Your task to perform on an android device: Go to sound settings Image 0: 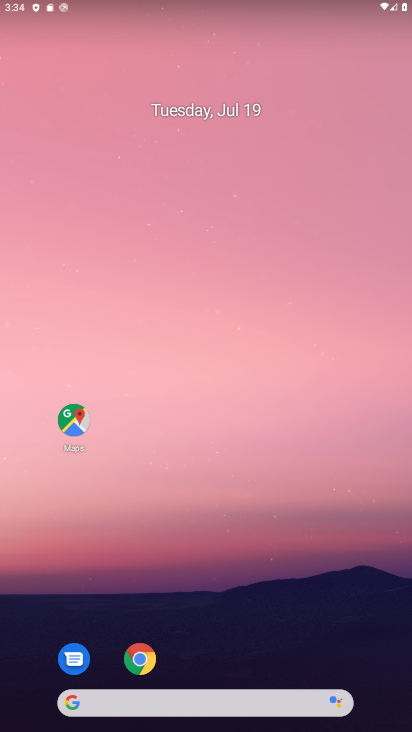
Step 0: drag from (212, 550) to (115, 186)
Your task to perform on an android device: Go to sound settings Image 1: 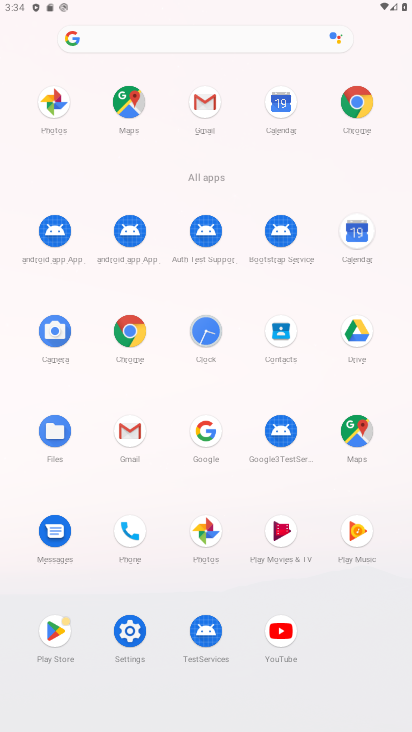
Step 1: click (120, 633)
Your task to perform on an android device: Go to sound settings Image 2: 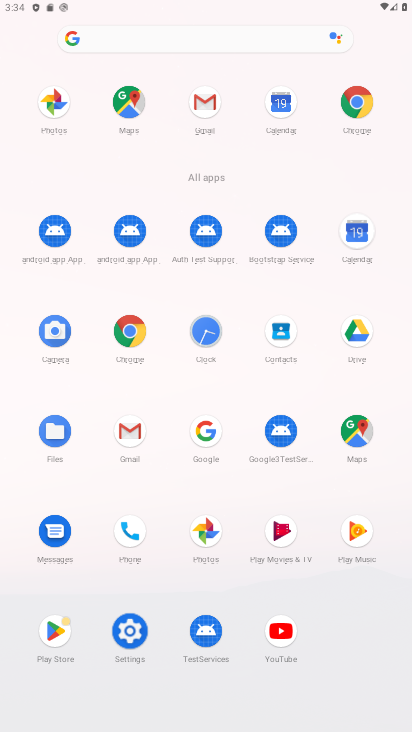
Step 2: click (122, 632)
Your task to perform on an android device: Go to sound settings Image 3: 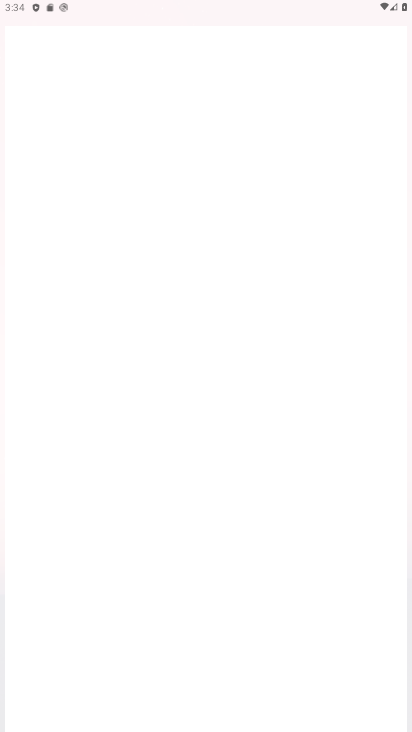
Step 3: click (132, 626)
Your task to perform on an android device: Go to sound settings Image 4: 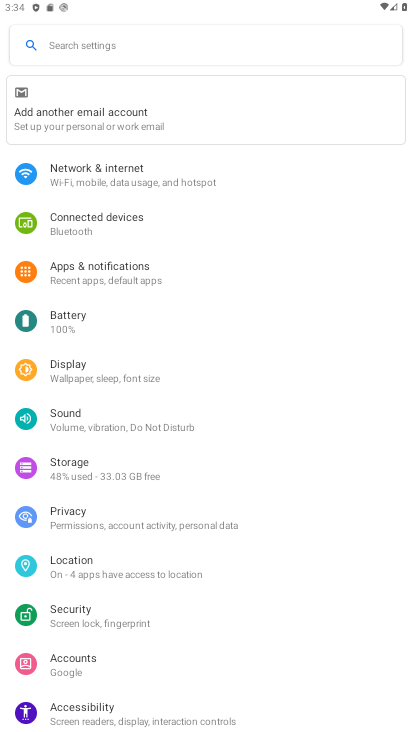
Step 4: click (40, 409)
Your task to perform on an android device: Go to sound settings Image 5: 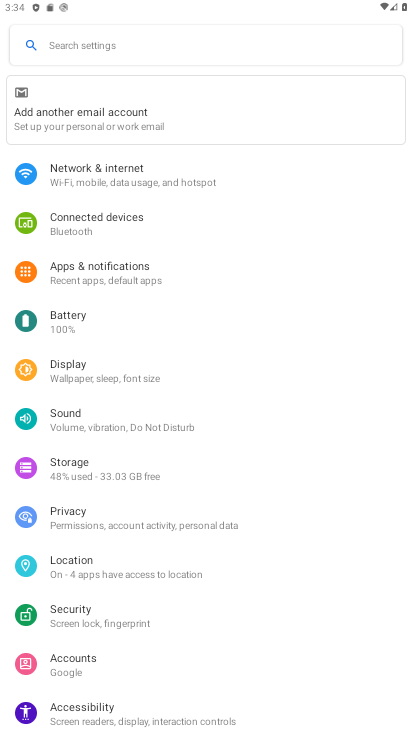
Step 5: click (41, 407)
Your task to perform on an android device: Go to sound settings Image 6: 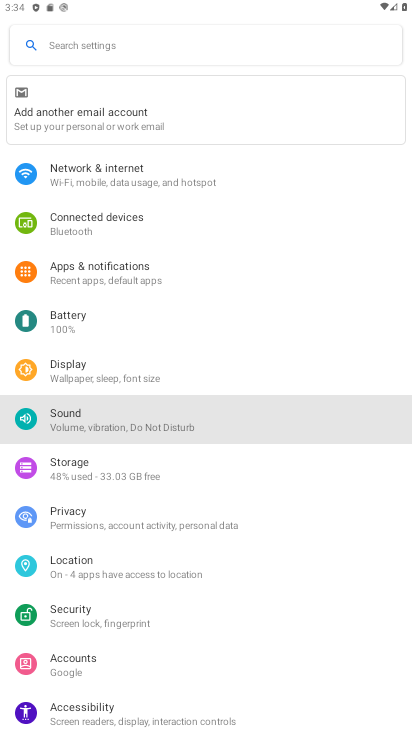
Step 6: click (78, 423)
Your task to perform on an android device: Go to sound settings Image 7: 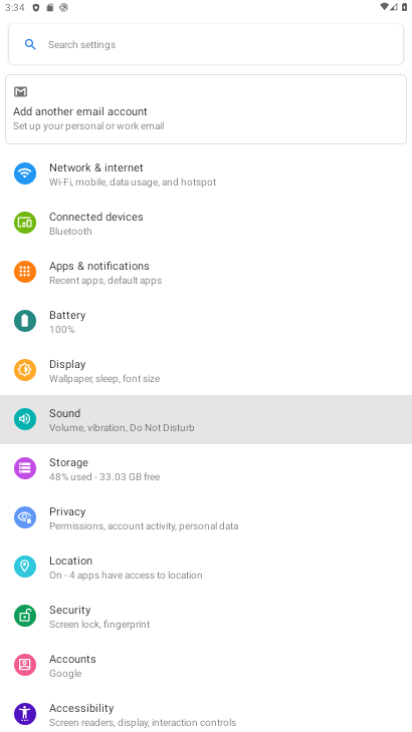
Step 7: click (84, 422)
Your task to perform on an android device: Go to sound settings Image 8: 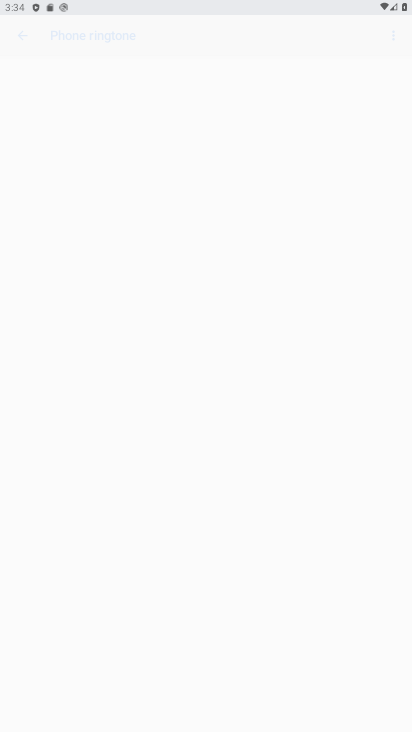
Step 8: task complete